Your task to perform on an android device: Go to Android settings Image 0: 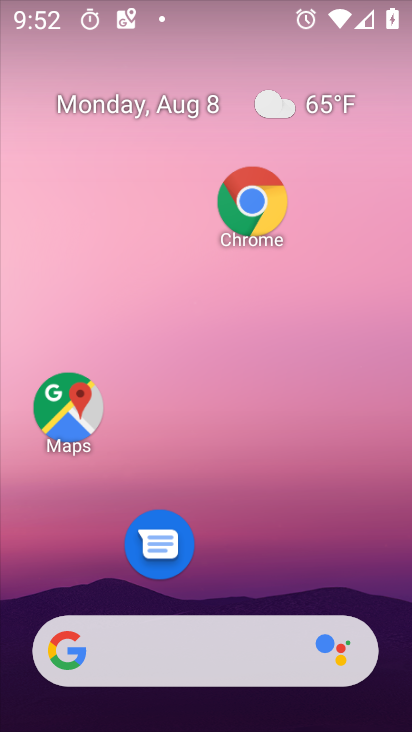
Step 0: press home button
Your task to perform on an android device: Go to Android settings Image 1: 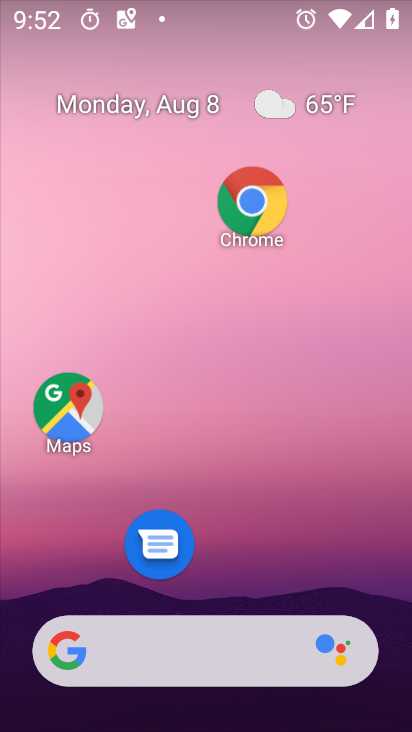
Step 1: drag from (226, 588) to (245, 1)
Your task to perform on an android device: Go to Android settings Image 2: 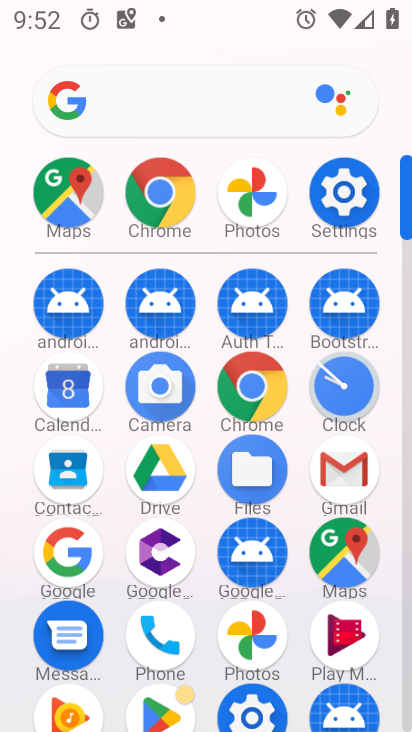
Step 2: click (346, 183)
Your task to perform on an android device: Go to Android settings Image 3: 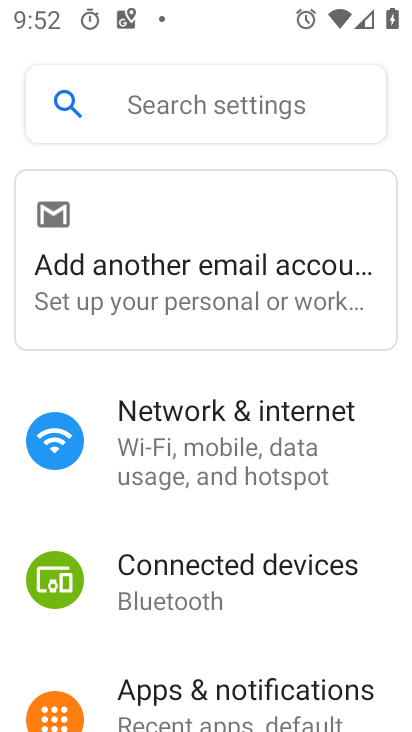
Step 3: drag from (283, 649) to (316, 124)
Your task to perform on an android device: Go to Android settings Image 4: 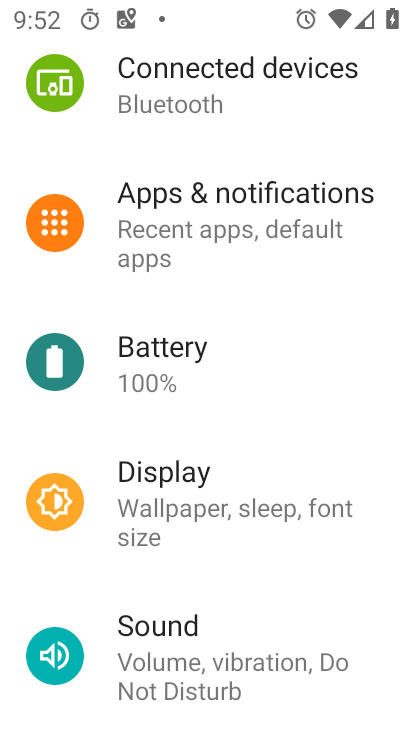
Step 4: drag from (267, 699) to (290, 57)
Your task to perform on an android device: Go to Android settings Image 5: 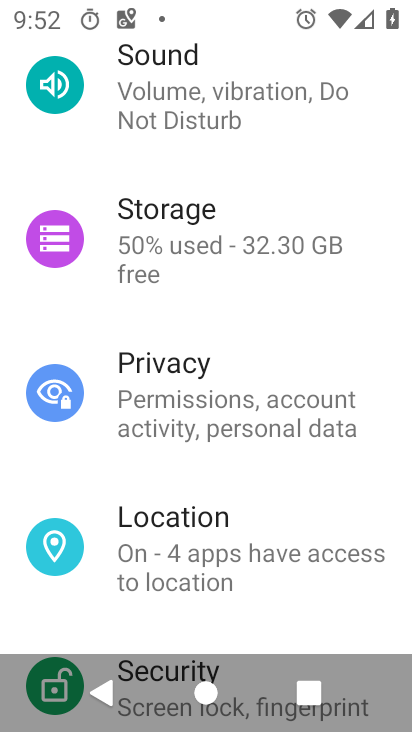
Step 5: drag from (245, 631) to (251, 108)
Your task to perform on an android device: Go to Android settings Image 6: 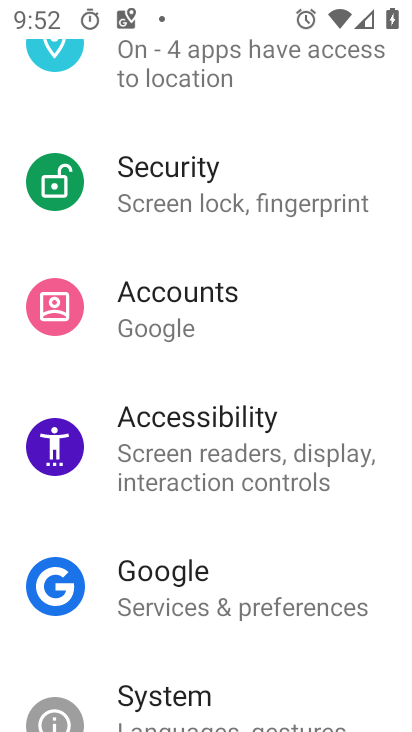
Step 6: drag from (239, 685) to (220, 32)
Your task to perform on an android device: Go to Android settings Image 7: 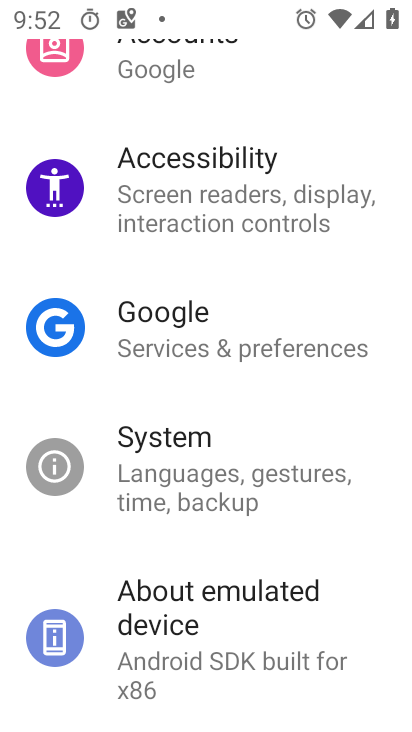
Step 7: click (228, 638)
Your task to perform on an android device: Go to Android settings Image 8: 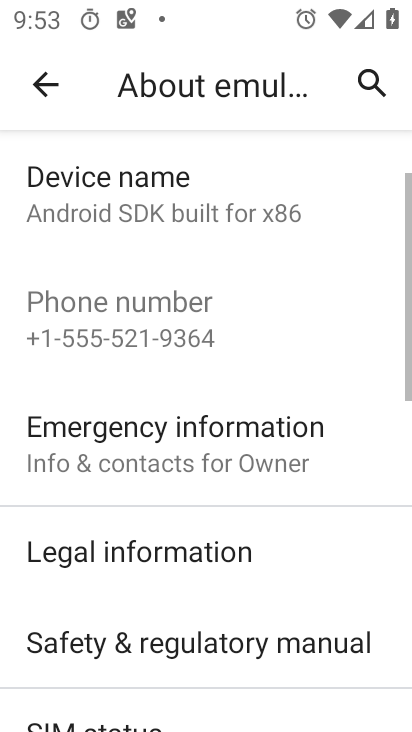
Step 8: task complete